Your task to perform on an android device: Search for "asus zenbook" on bestbuy.com, select the first entry, and add it to the cart. Image 0: 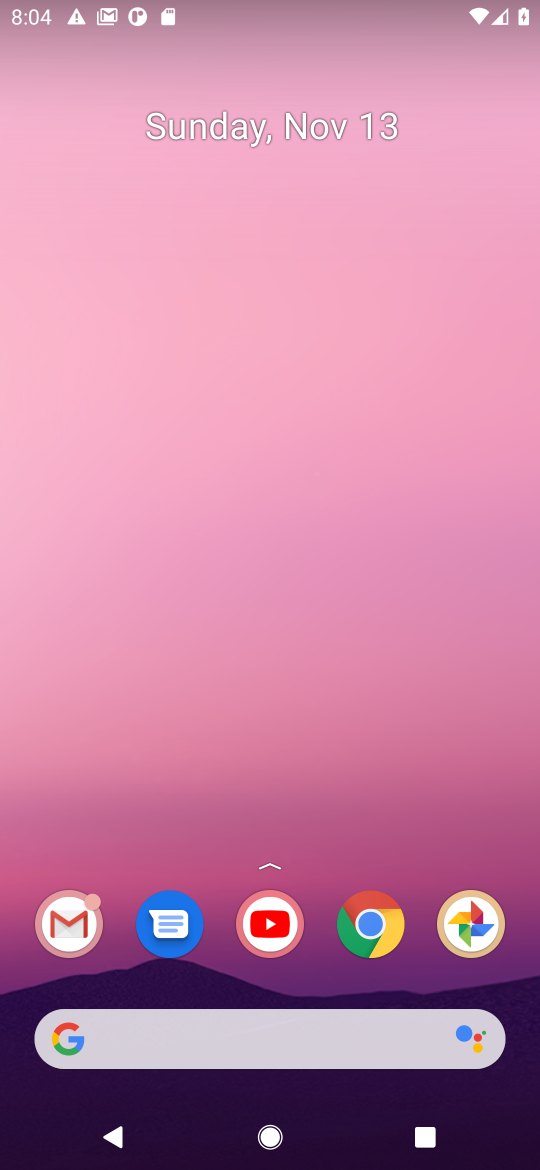
Step 0: click (382, 936)
Your task to perform on an android device: Search for "asus zenbook" on bestbuy.com, select the first entry, and add it to the cart. Image 1: 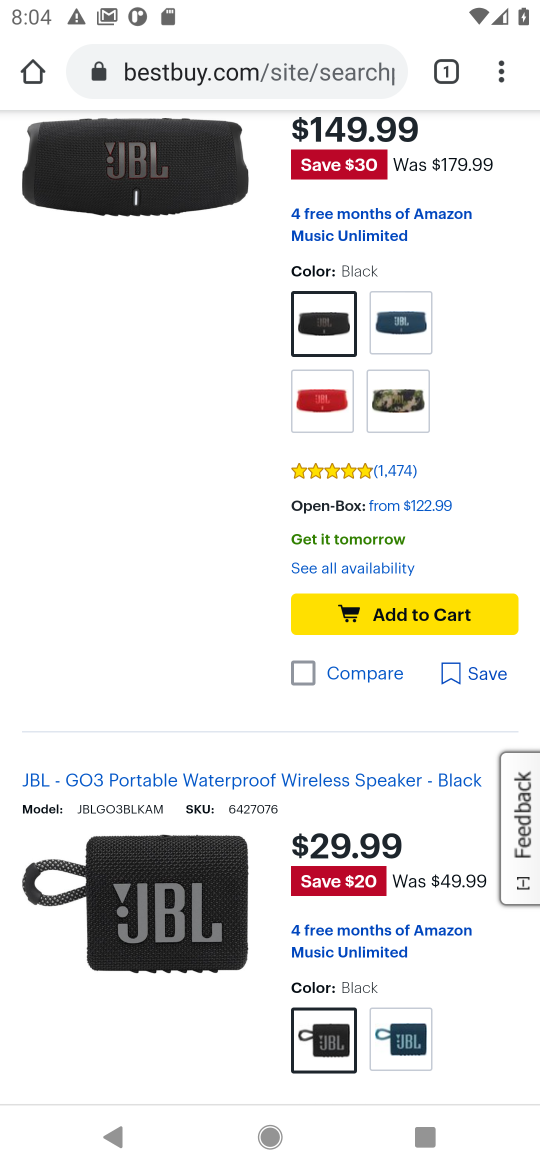
Step 1: drag from (202, 200) to (246, 915)
Your task to perform on an android device: Search for "asus zenbook" on bestbuy.com, select the first entry, and add it to the cart. Image 2: 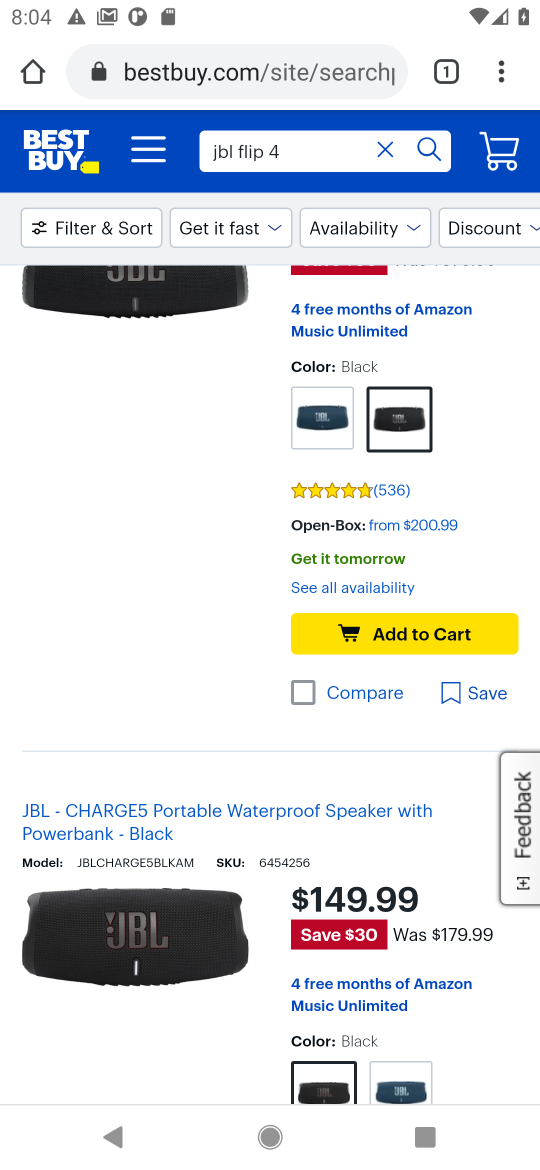
Step 2: click (374, 160)
Your task to perform on an android device: Search for "asus zenbook" on bestbuy.com, select the first entry, and add it to the cart. Image 3: 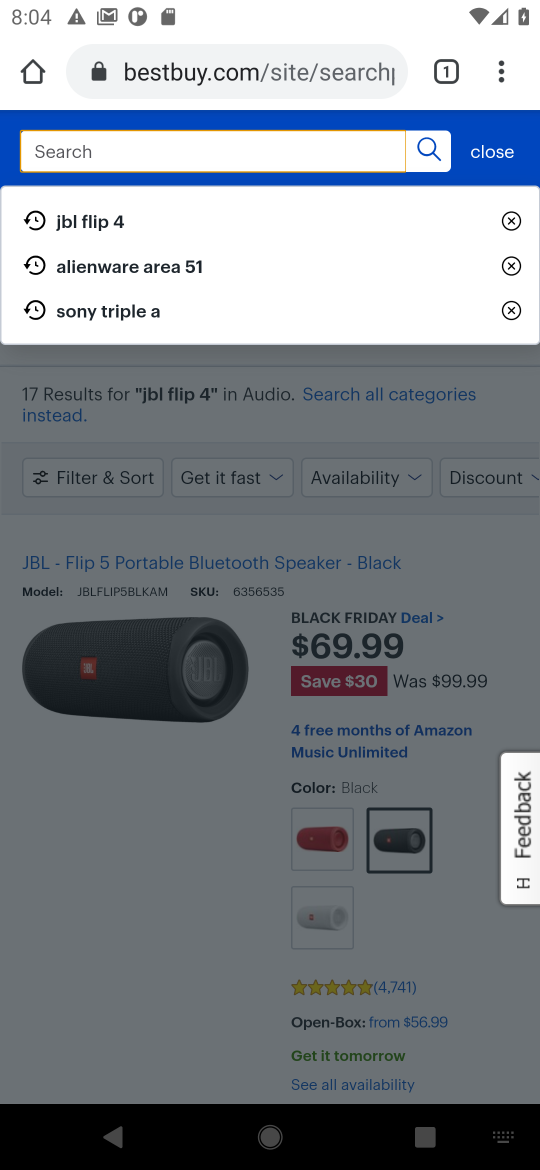
Step 3: type "asus zenbook"
Your task to perform on an android device: Search for "asus zenbook" on bestbuy.com, select the first entry, and add it to the cart. Image 4: 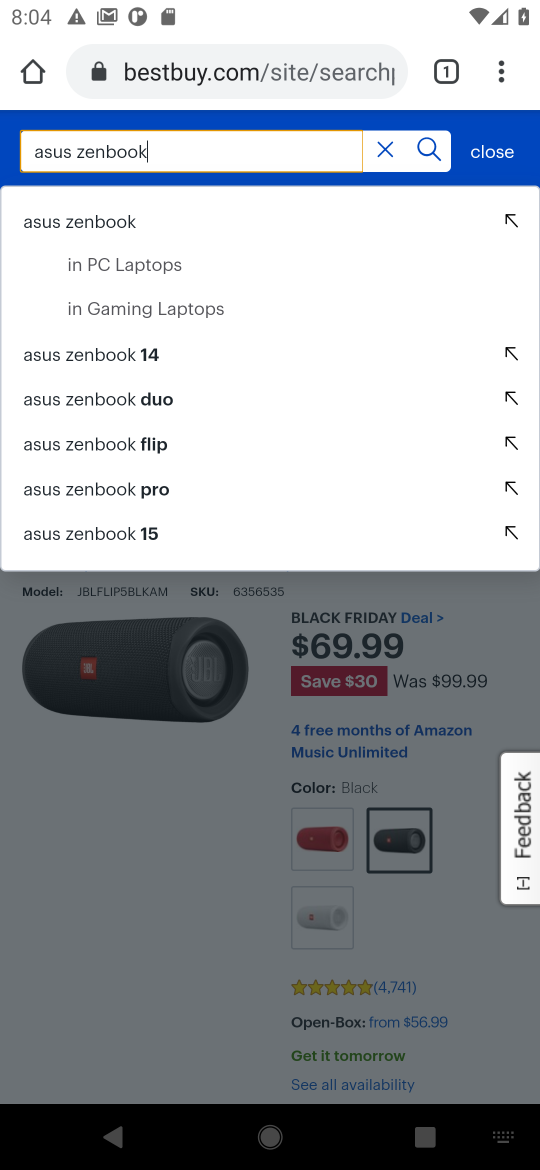
Step 4: click (97, 235)
Your task to perform on an android device: Search for "asus zenbook" on bestbuy.com, select the first entry, and add it to the cart. Image 5: 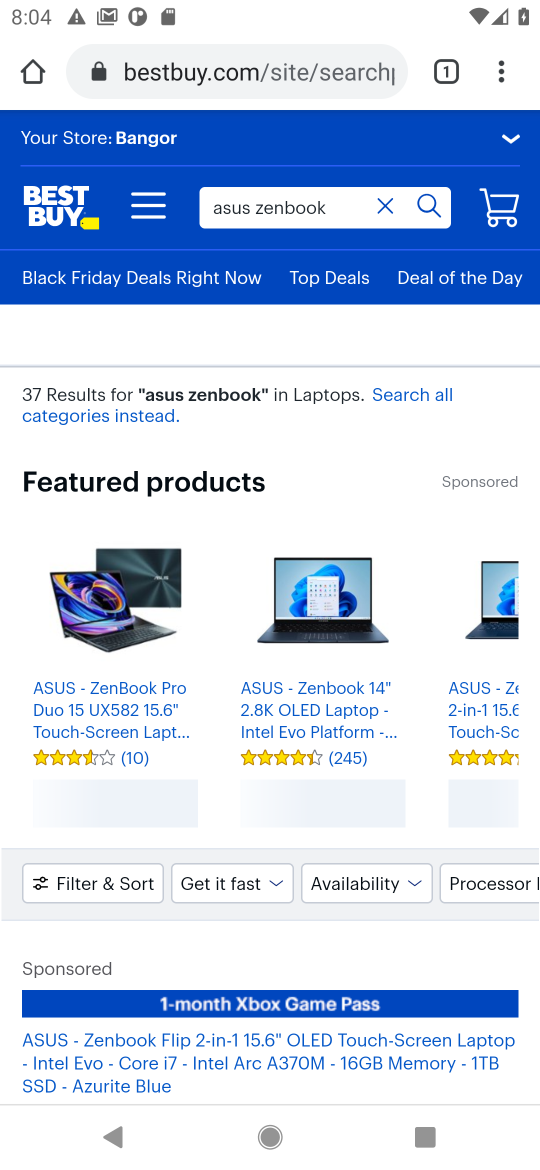
Step 5: drag from (213, 902) to (197, 486)
Your task to perform on an android device: Search for "asus zenbook" on bestbuy.com, select the first entry, and add it to the cart. Image 6: 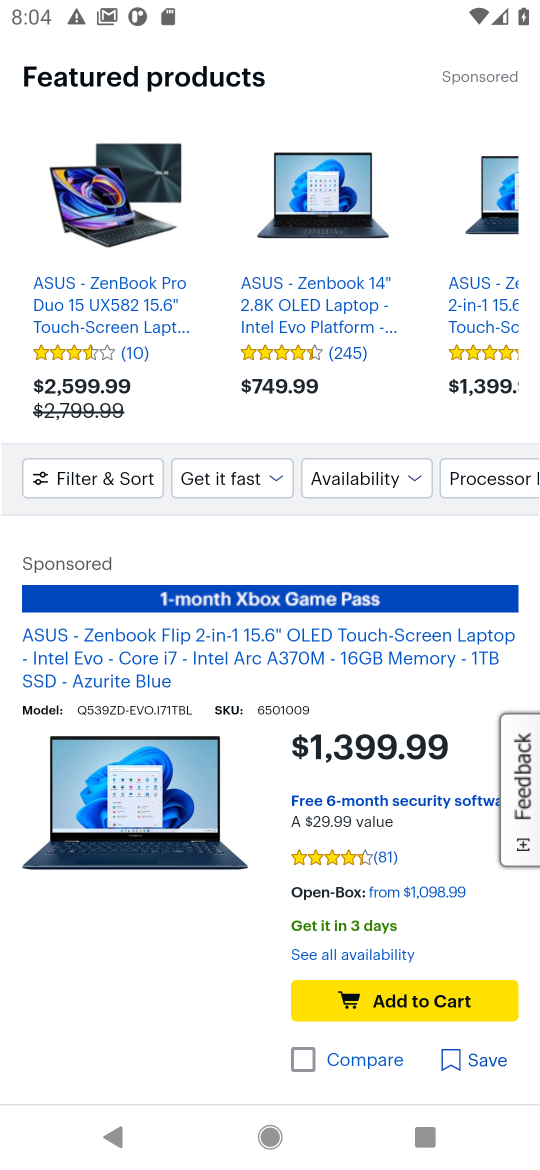
Step 6: drag from (197, 951) to (166, 610)
Your task to perform on an android device: Search for "asus zenbook" on bestbuy.com, select the first entry, and add it to the cart. Image 7: 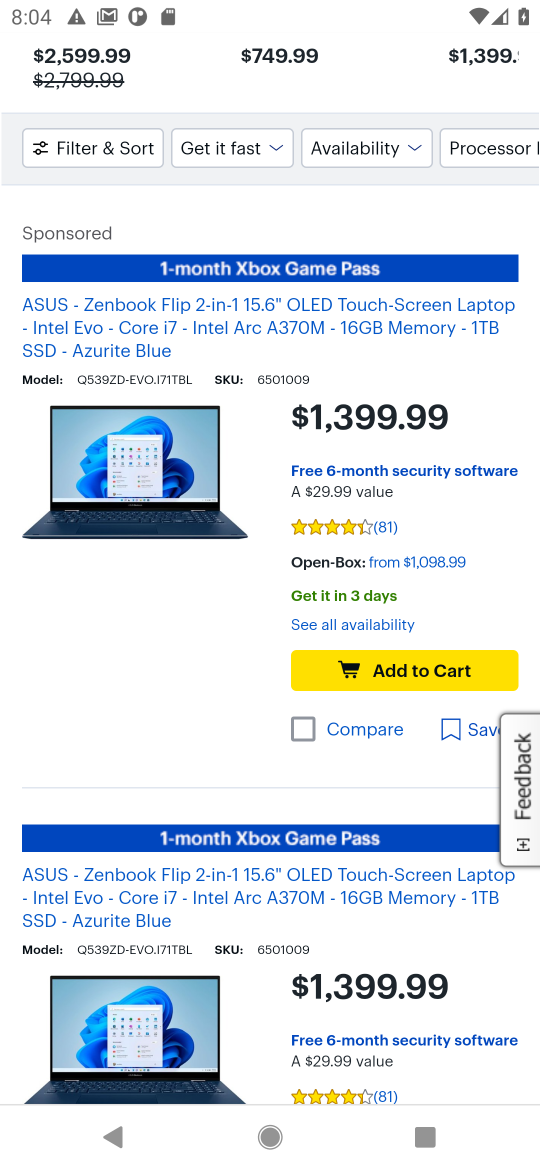
Step 7: click (358, 677)
Your task to perform on an android device: Search for "asus zenbook" on bestbuy.com, select the first entry, and add it to the cart. Image 8: 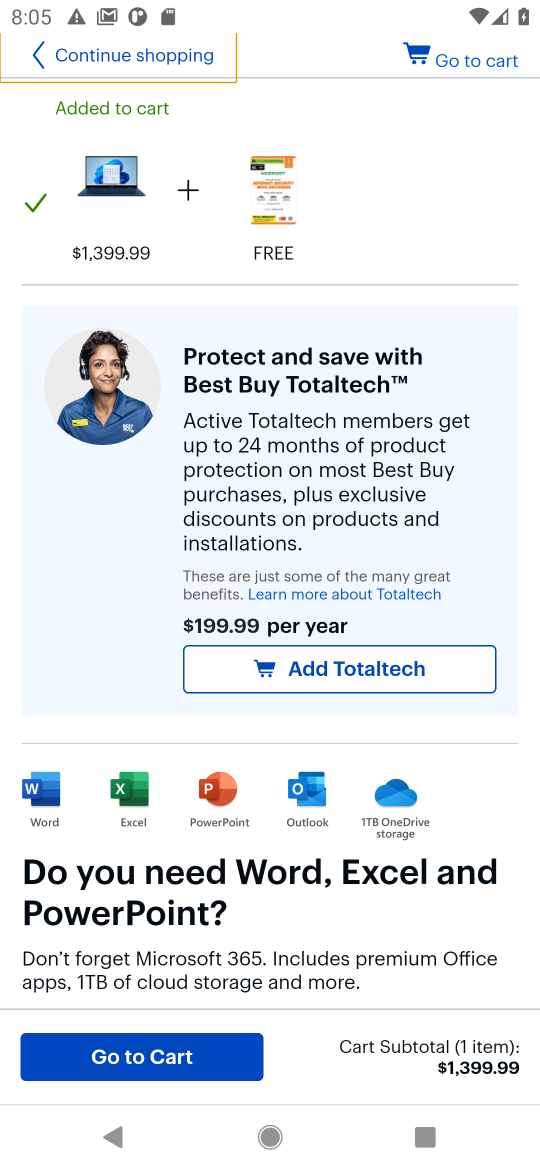
Step 8: task complete